Your task to perform on an android device: Search for the new nintendo switch on Walmart. Image 0: 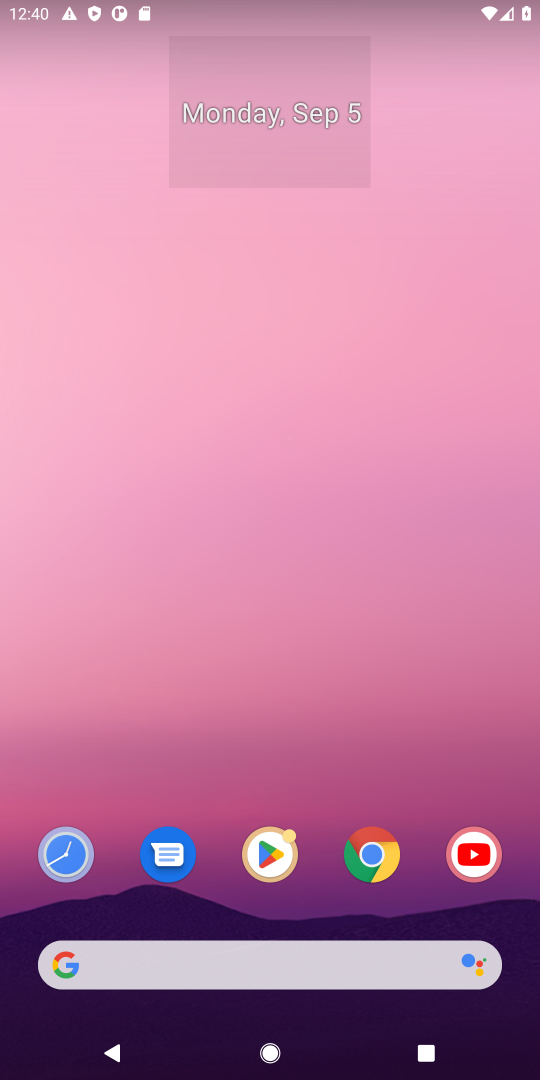
Step 0: press home button
Your task to perform on an android device: Search for the new nintendo switch on Walmart. Image 1: 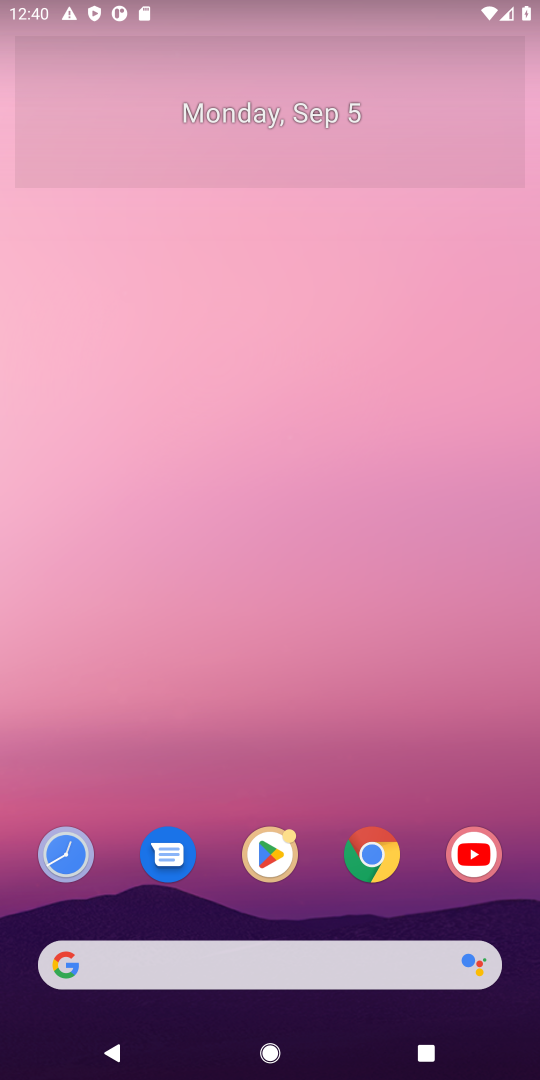
Step 1: click (314, 962)
Your task to perform on an android device: Search for the new nintendo switch on Walmart. Image 2: 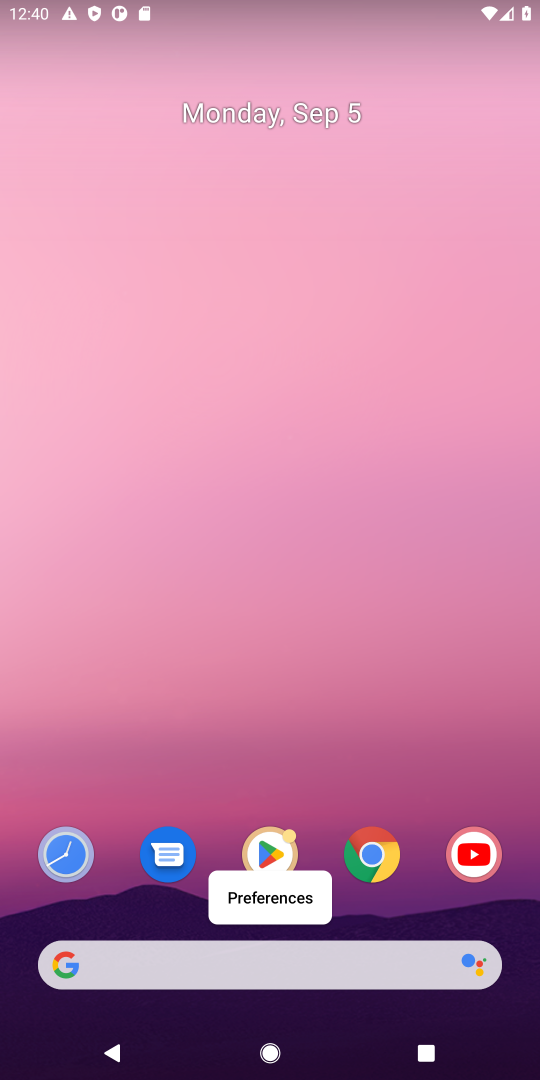
Step 2: click (180, 953)
Your task to perform on an android device: Search for the new nintendo switch on Walmart. Image 3: 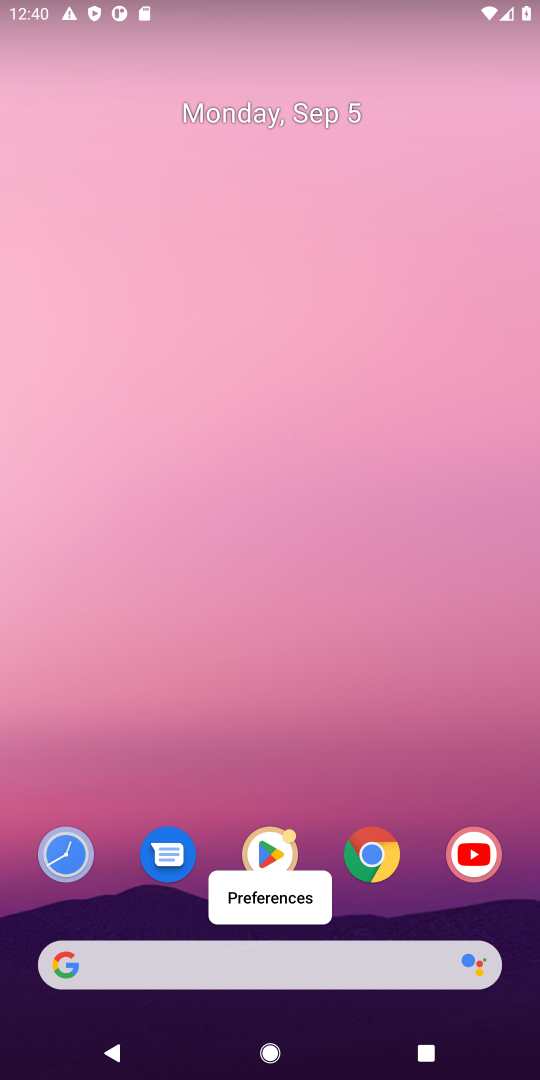
Step 3: click (221, 952)
Your task to perform on an android device: Search for the new nintendo switch on Walmart. Image 4: 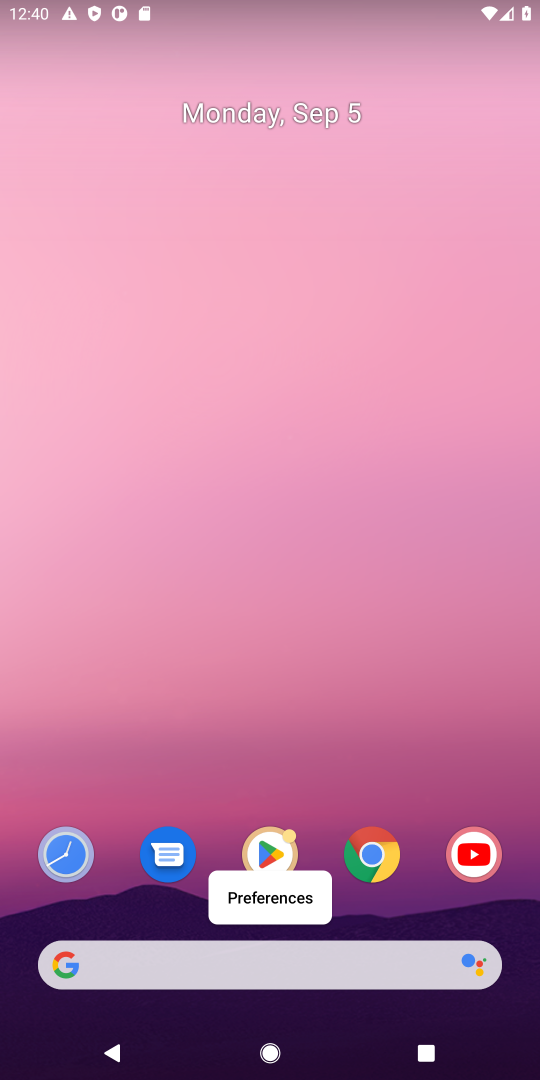
Step 4: click (307, 963)
Your task to perform on an android device: Search for the new nintendo switch on Walmart. Image 5: 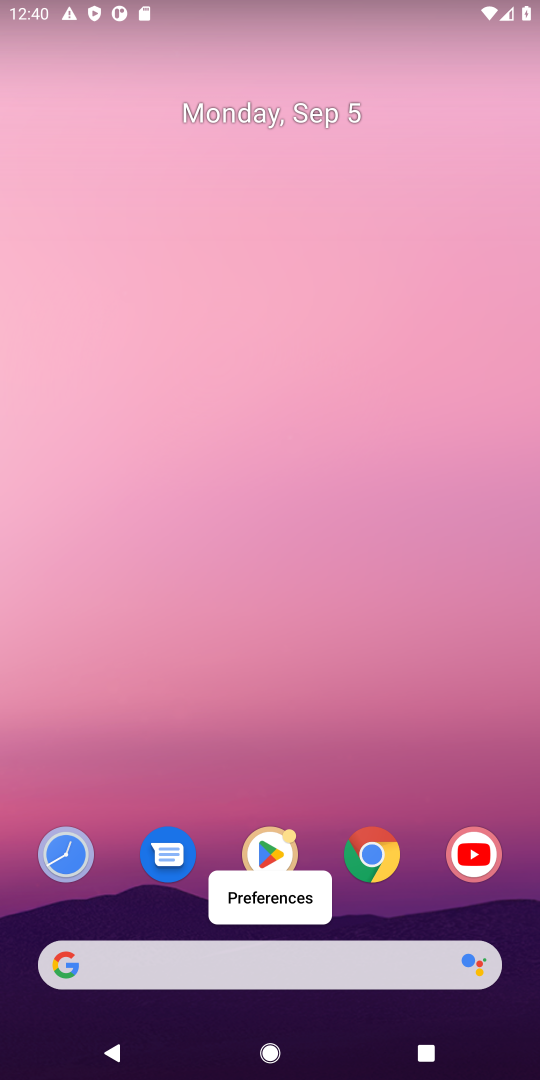
Step 5: drag from (507, 763) to (459, 47)
Your task to perform on an android device: Search for the new nintendo switch on Walmart. Image 6: 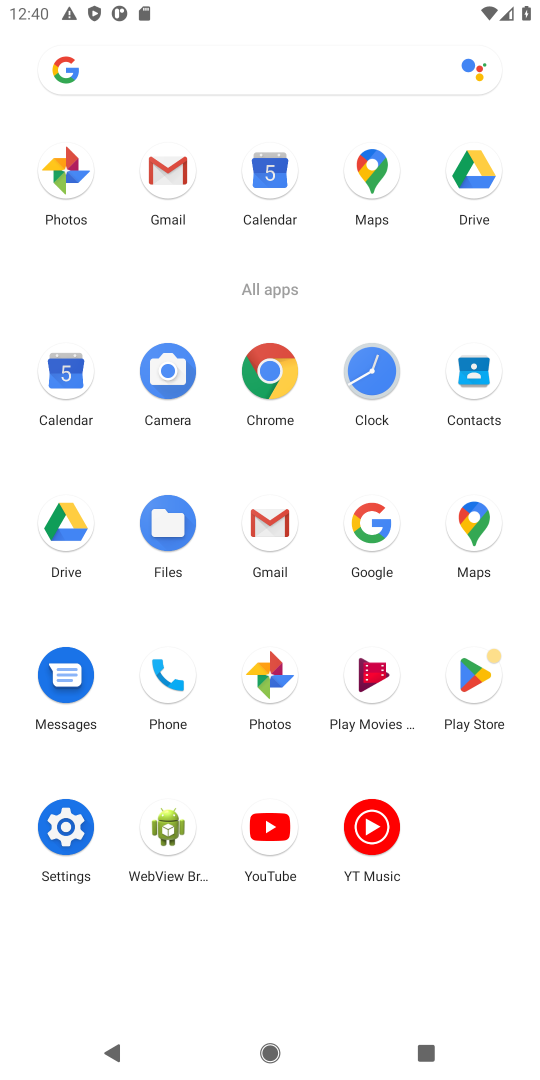
Step 6: click (377, 527)
Your task to perform on an android device: Search for the new nintendo switch on Walmart. Image 7: 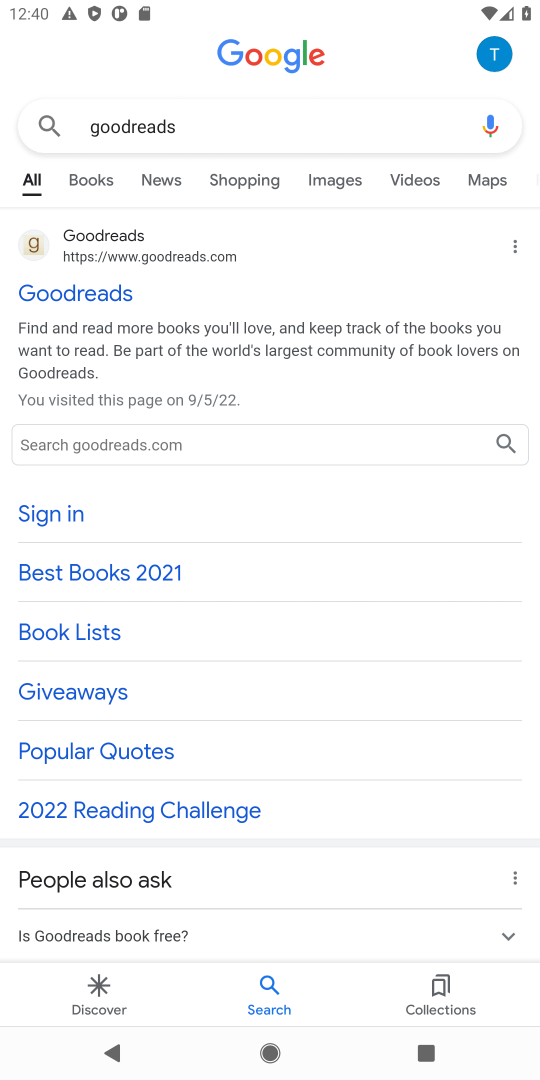
Step 7: click (264, 126)
Your task to perform on an android device: Search for the new nintendo switch on Walmart. Image 8: 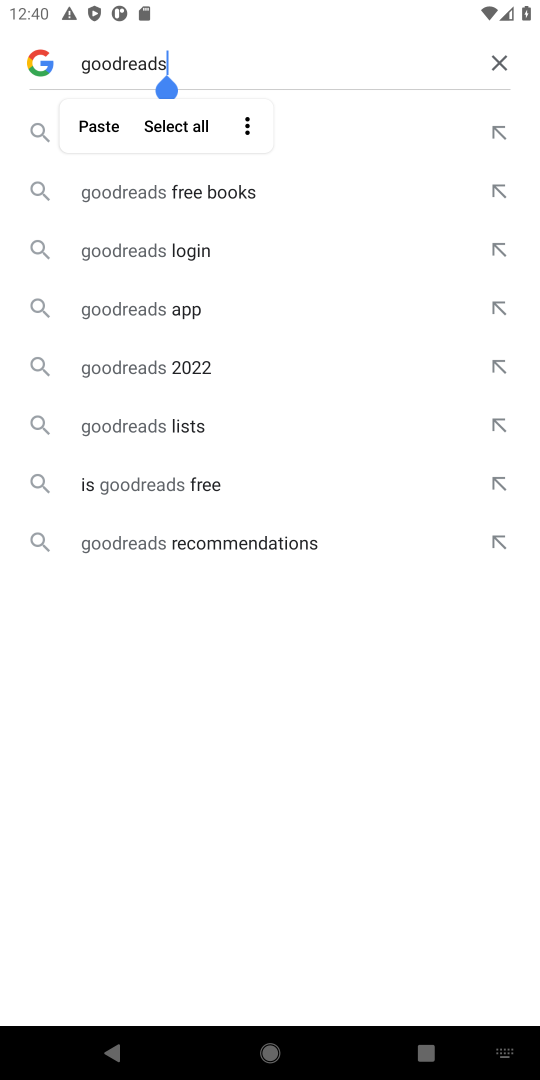
Step 8: click (495, 56)
Your task to perform on an android device: Search for the new nintendo switch on Walmart. Image 9: 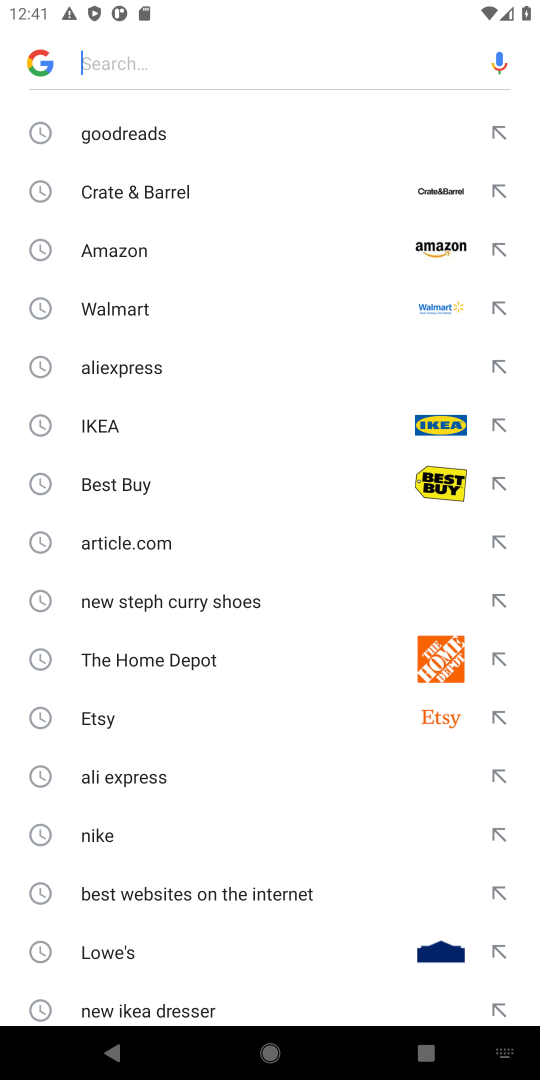
Step 9: type "walmart"
Your task to perform on an android device: Search for the new nintendo switch on Walmart. Image 10: 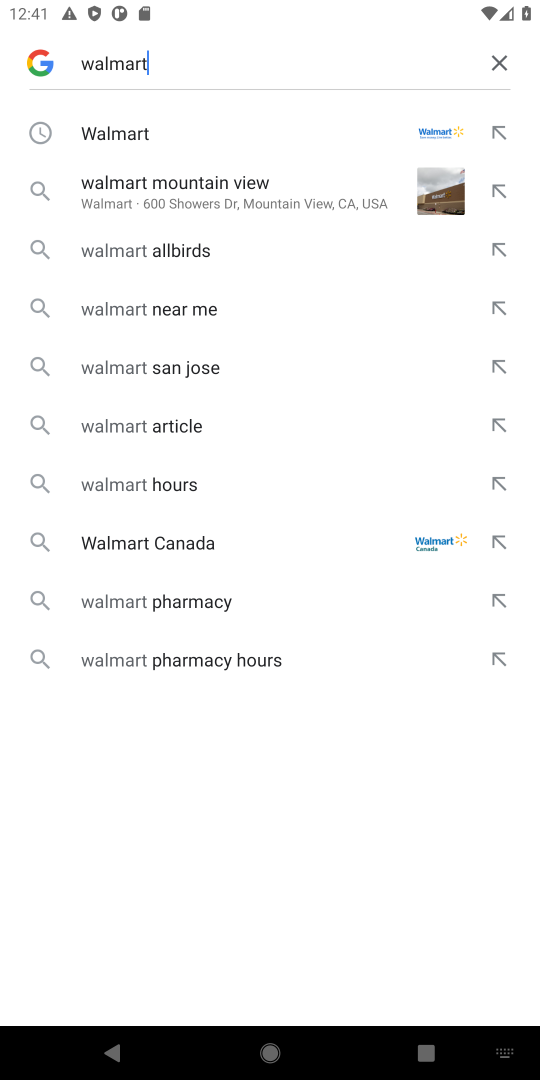
Step 10: press enter
Your task to perform on an android device: Search for the new nintendo switch on Walmart. Image 11: 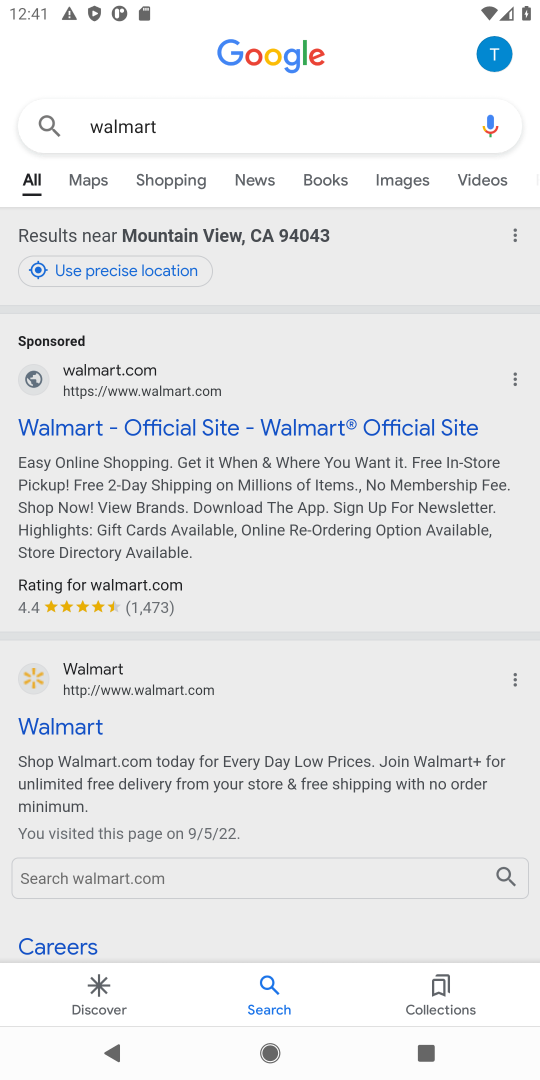
Step 11: click (59, 722)
Your task to perform on an android device: Search for the new nintendo switch on Walmart. Image 12: 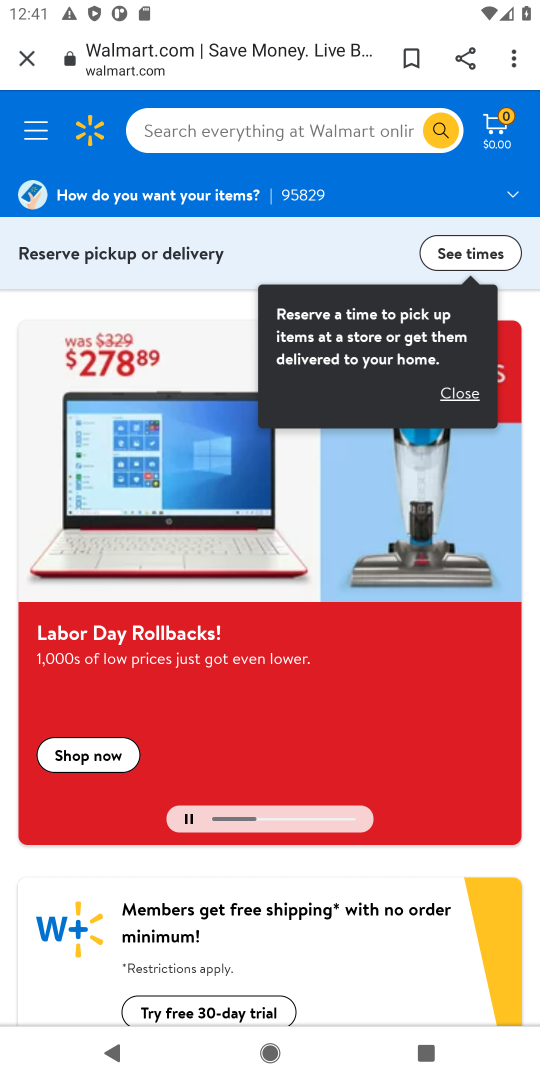
Step 12: click (221, 124)
Your task to perform on an android device: Search for the new nintendo switch on Walmart. Image 13: 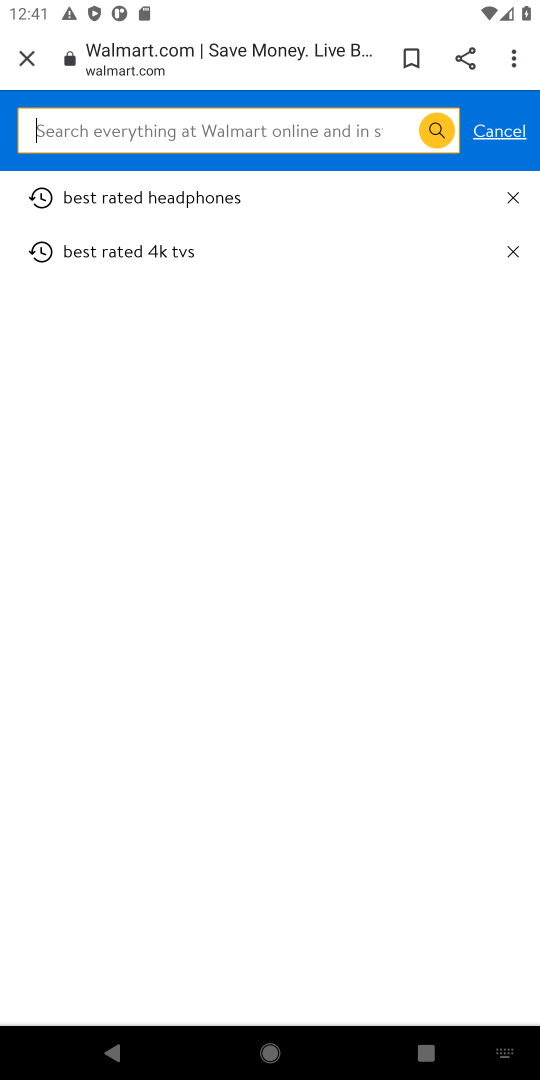
Step 13: type "new nintendo switch "
Your task to perform on an android device: Search for the new nintendo switch on Walmart. Image 14: 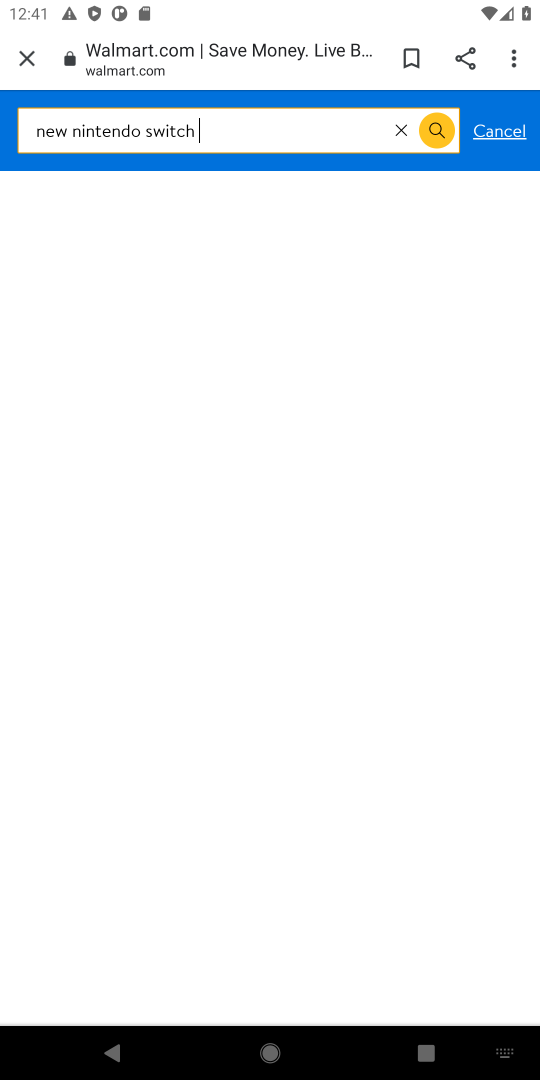
Step 14: press enter
Your task to perform on an android device: Search for the new nintendo switch on Walmart. Image 15: 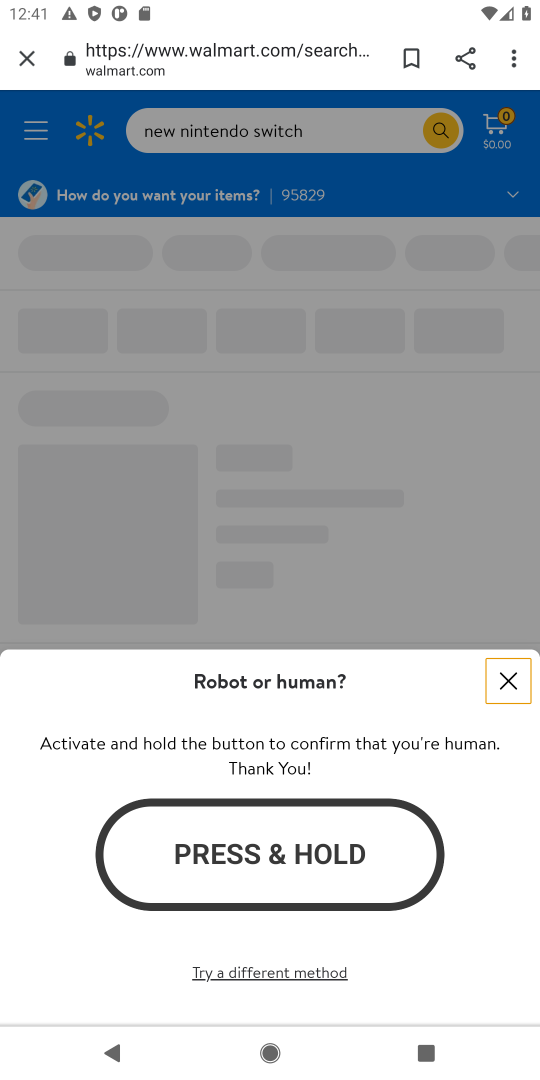
Step 15: click (499, 685)
Your task to perform on an android device: Search for the new nintendo switch on Walmart. Image 16: 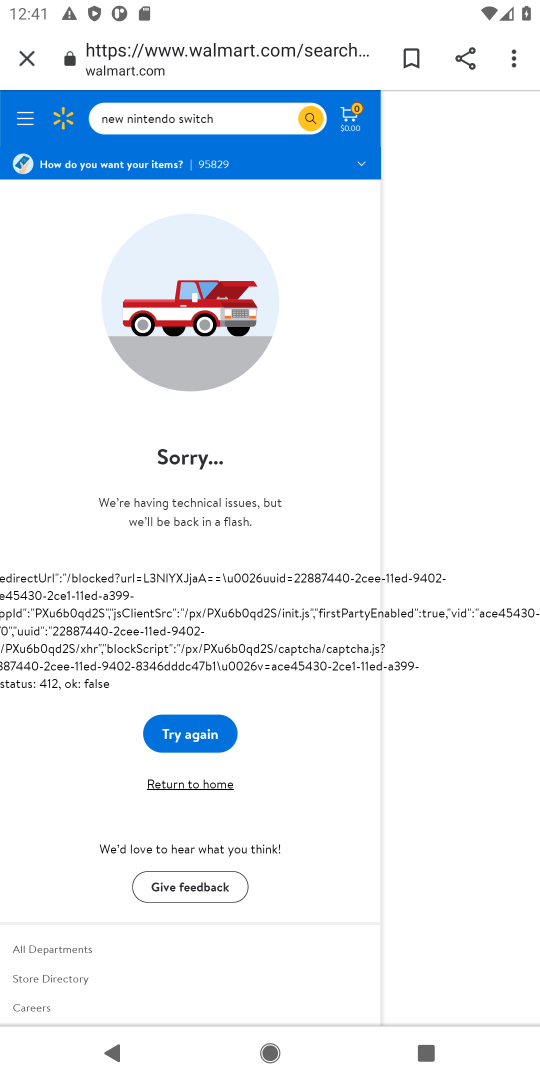
Step 16: task complete